Your task to perform on an android device: Go to accessibility settings Image 0: 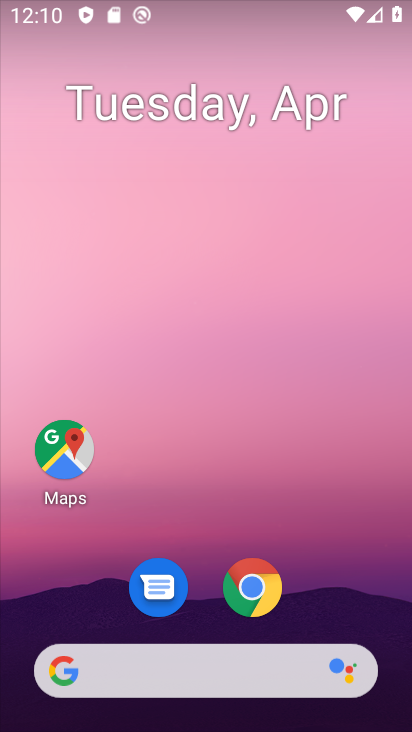
Step 0: drag from (366, 426) to (368, 166)
Your task to perform on an android device: Go to accessibility settings Image 1: 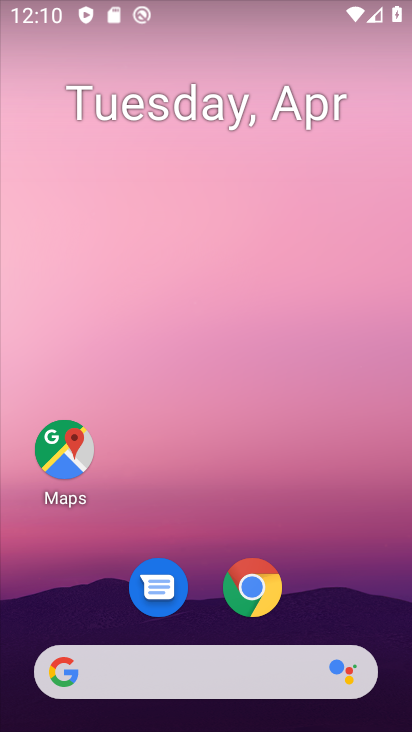
Step 1: drag from (357, 481) to (360, 107)
Your task to perform on an android device: Go to accessibility settings Image 2: 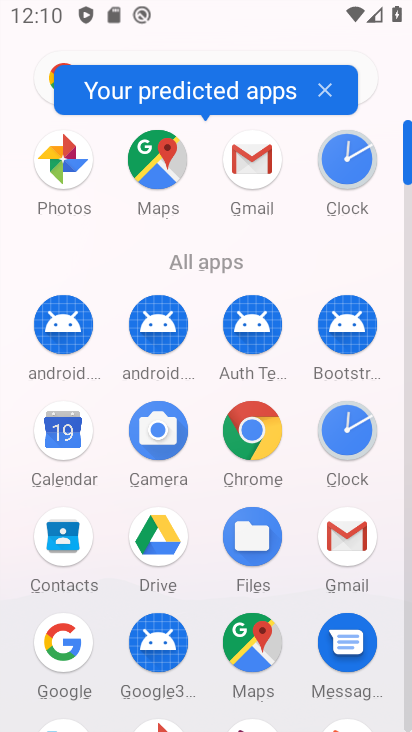
Step 2: drag from (297, 566) to (330, 231)
Your task to perform on an android device: Go to accessibility settings Image 3: 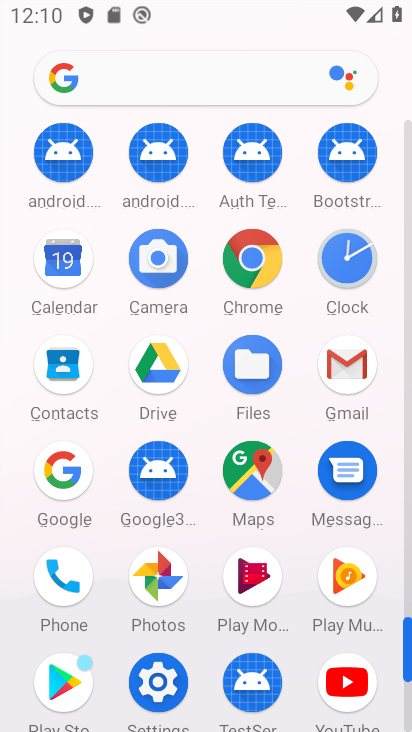
Step 3: click (160, 688)
Your task to perform on an android device: Go to accessibility settings Image 4: 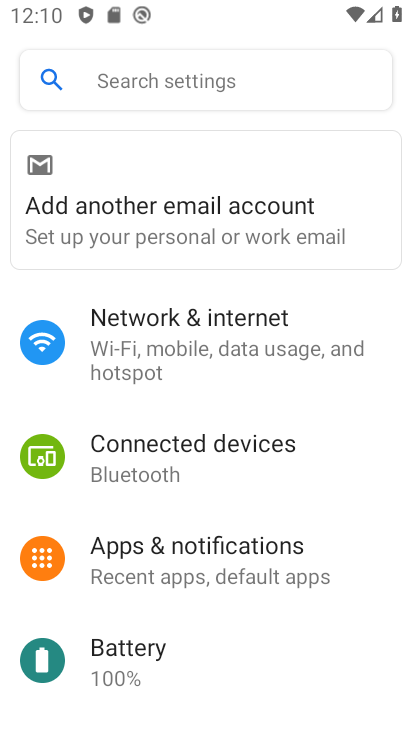
Step 4: drag from (290, 642) to (409, 288)
Your task to perform on an android device: Go to accessibility settings Image 5: 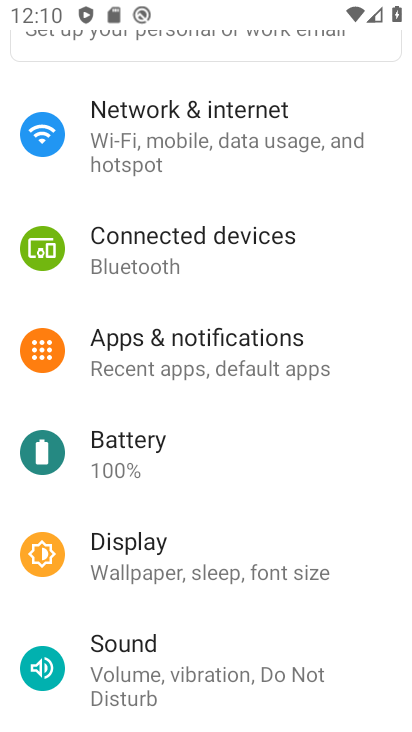
Step 5: drag from (286, 525) to (315, 213)
Your task to perform on an android device: Go to accessibility settings Image 6: 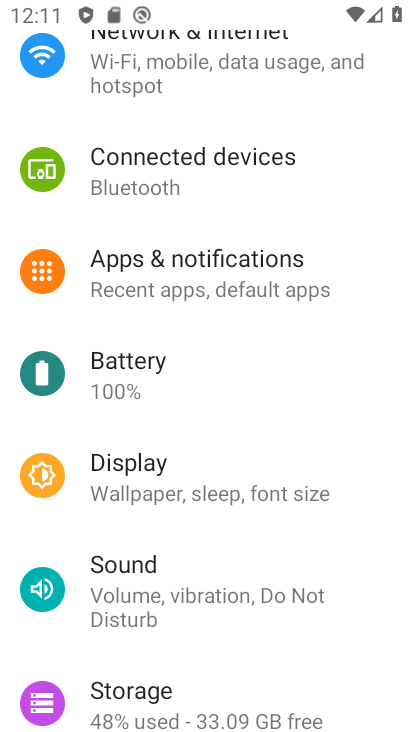
Step 6: drag from (245, 606) to (291, 232)
Your task to perform on an android device: Go to accessibility settings Image 7: 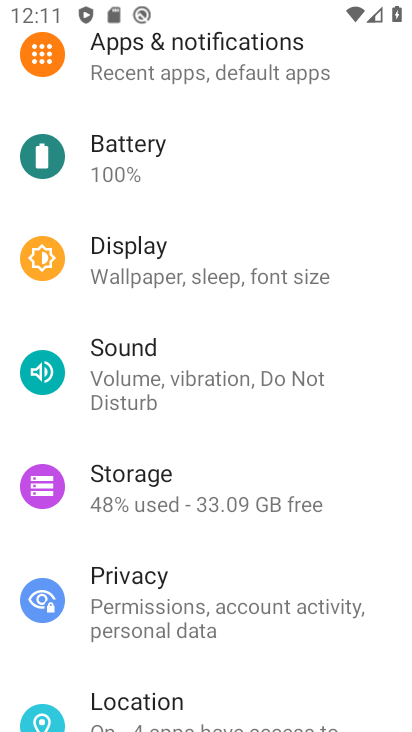
Step 7: drag from (277, 574) to (289, 321)
Your task to perform on an android device: Go to accessibility settings Image 8: 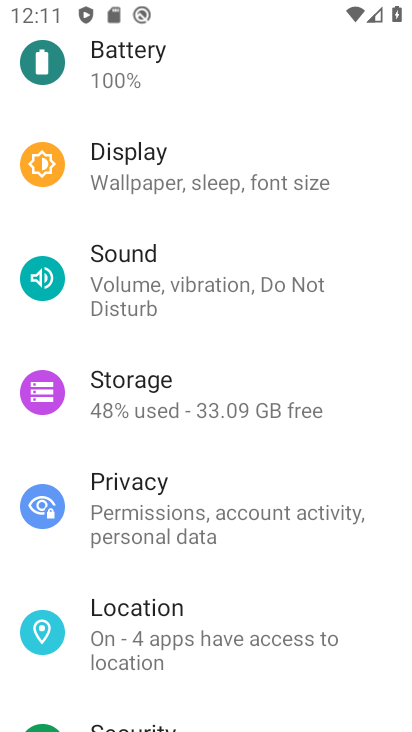
Step 8: drag from (237, 682) to (243, 282)
Your task to perform on an android device: Go to accessibility settings Image 9: 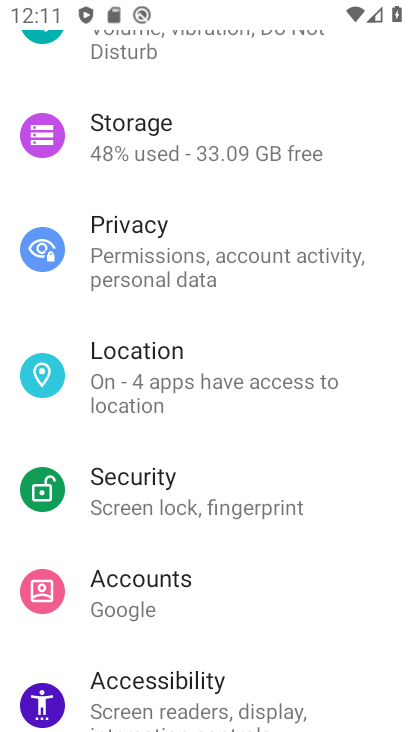
Step 9: click (207, 678)
Your task to perform on an android device: Go to accessibility settings Image 10: 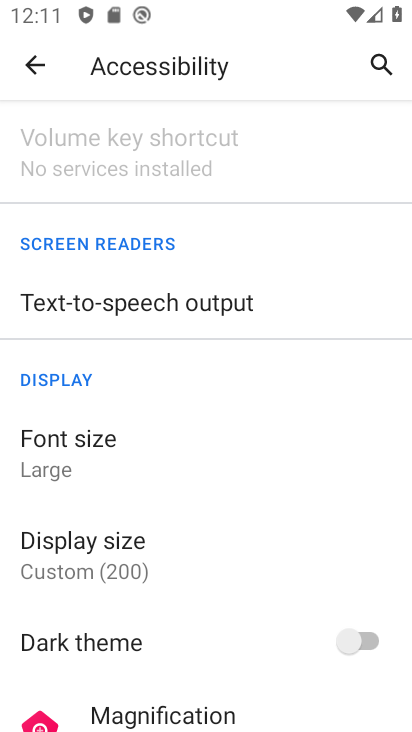
Step 10: task complete